Your task to perform on an android device: open app "PlayWell" (install if not already installed) Image 0: 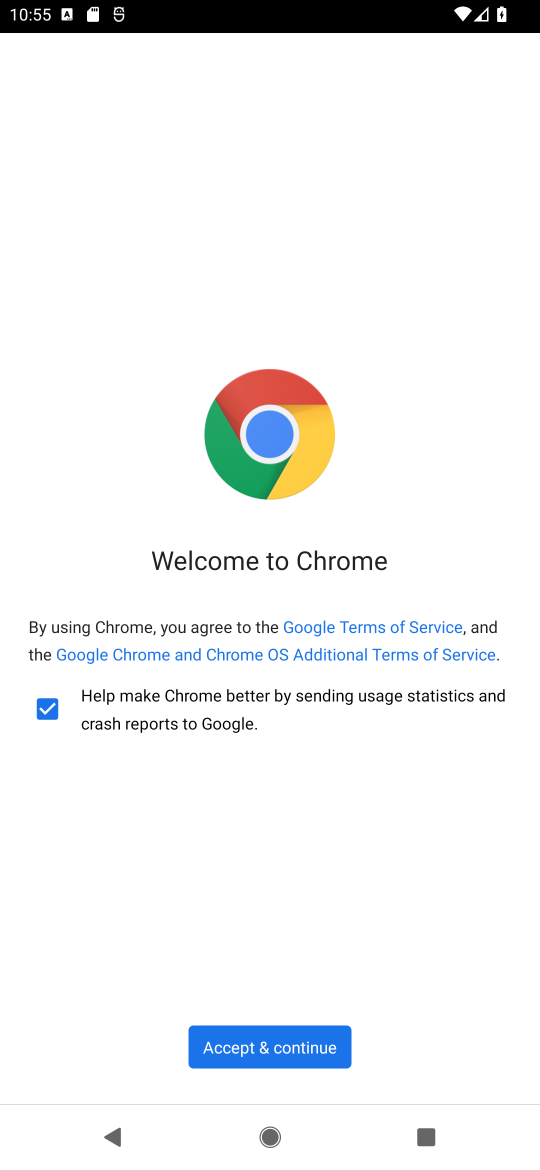
Step 0: press home button
Your task to perform on an android device: open app "PlayWell" (install if not already installed) Image 1: 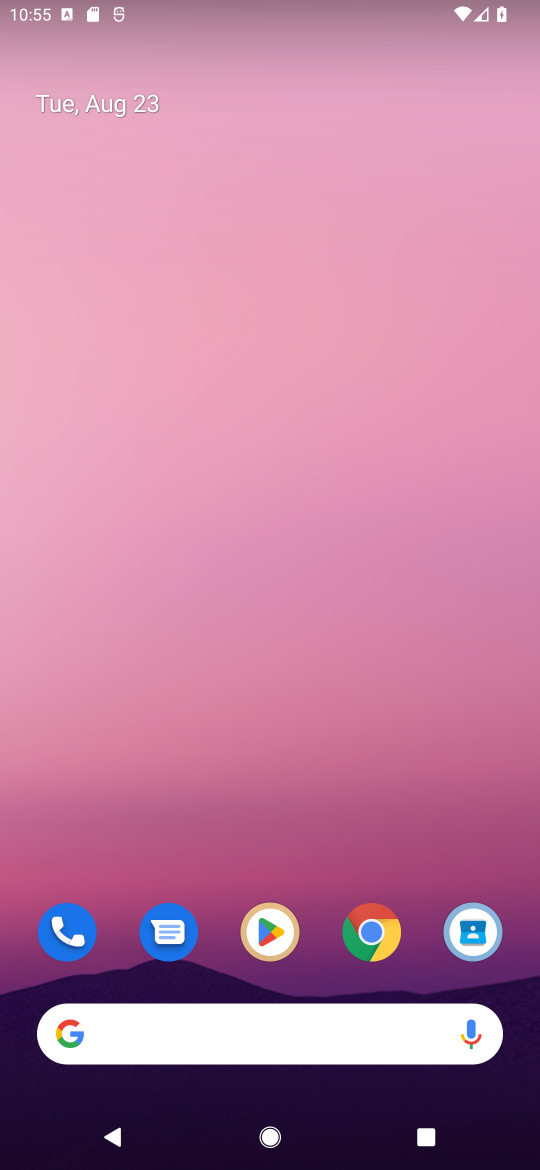
Step 1: click (277, 939)
Your task to perform on an android device: open app "PlayWell" (install if not already installed) Image 2: 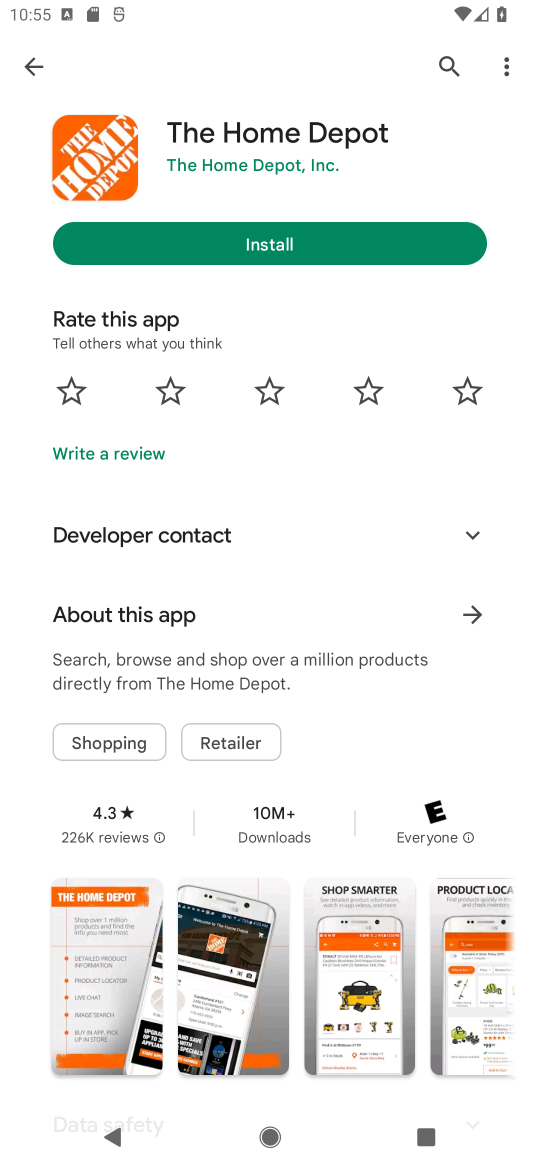
Step 2: click (456, 54)
Your task to perform on an android device: open app "PlayWell" (install if not already installed) Image 3: 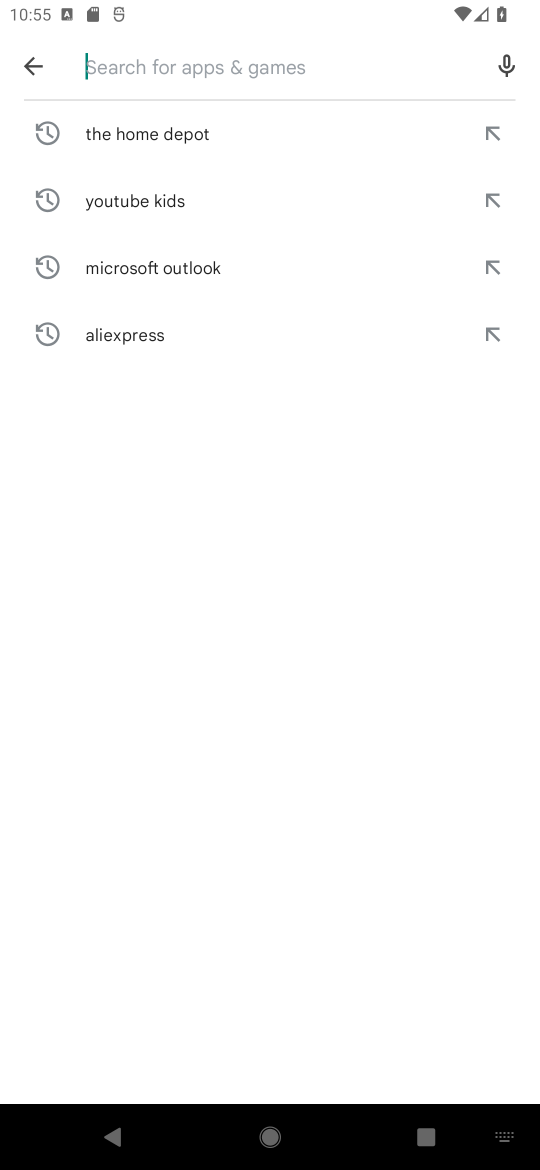
Step 3: click (153, 53)
Your task to perform on an android device: open app "PlayWell" (install if not already installed) Image 4: 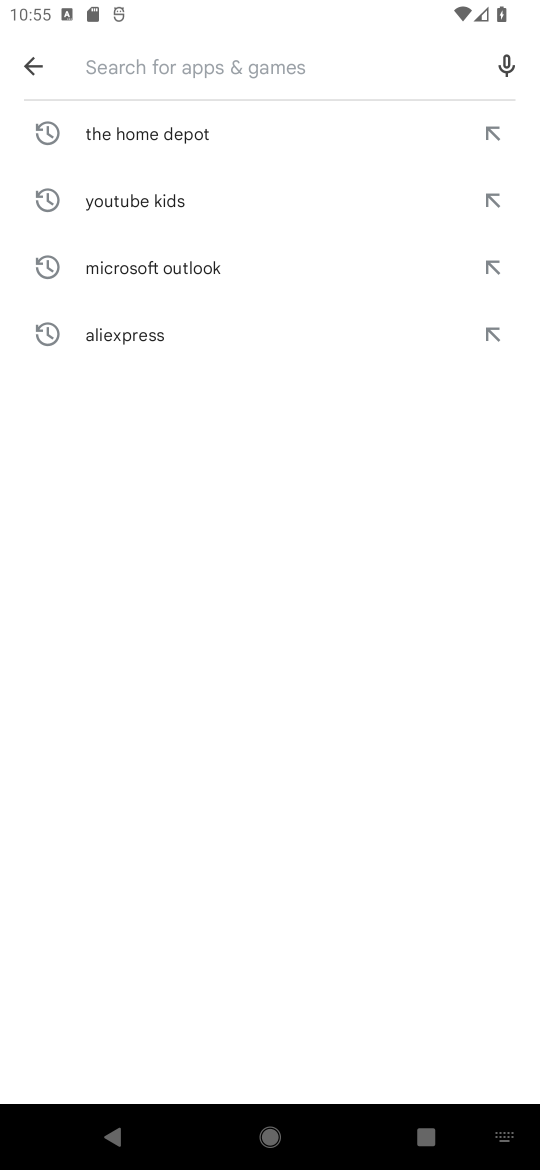
Step 4: type "PlayWell"
Your task to perform on an android device: open app "PlayWell" (install if not already installed) Image 5: 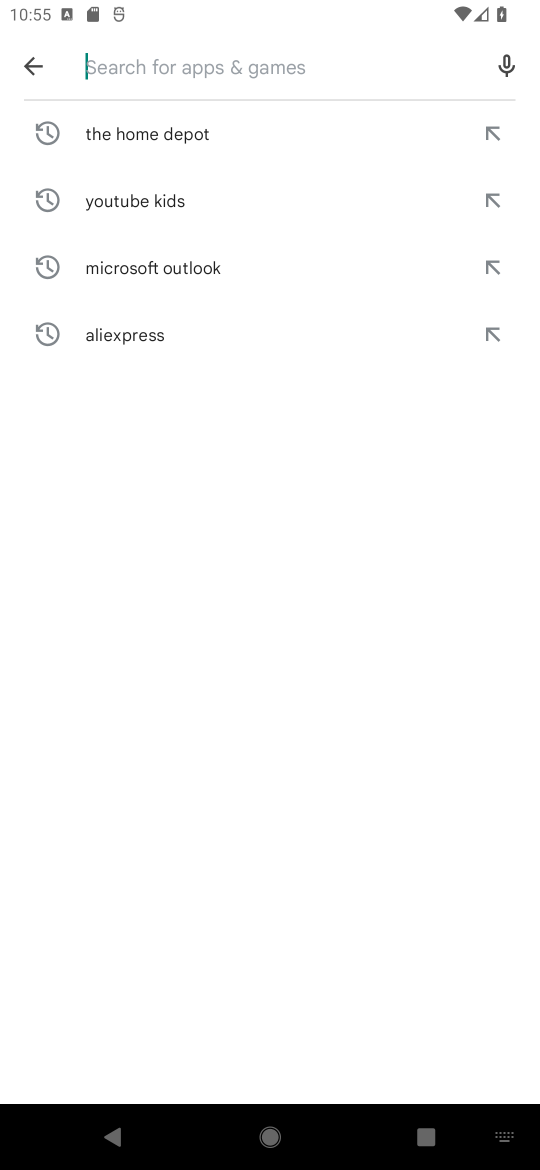
Step 5: click (303, 652)
Your task to perform on an android device: open app "PlayWell" (install if not already installed) Image 6: 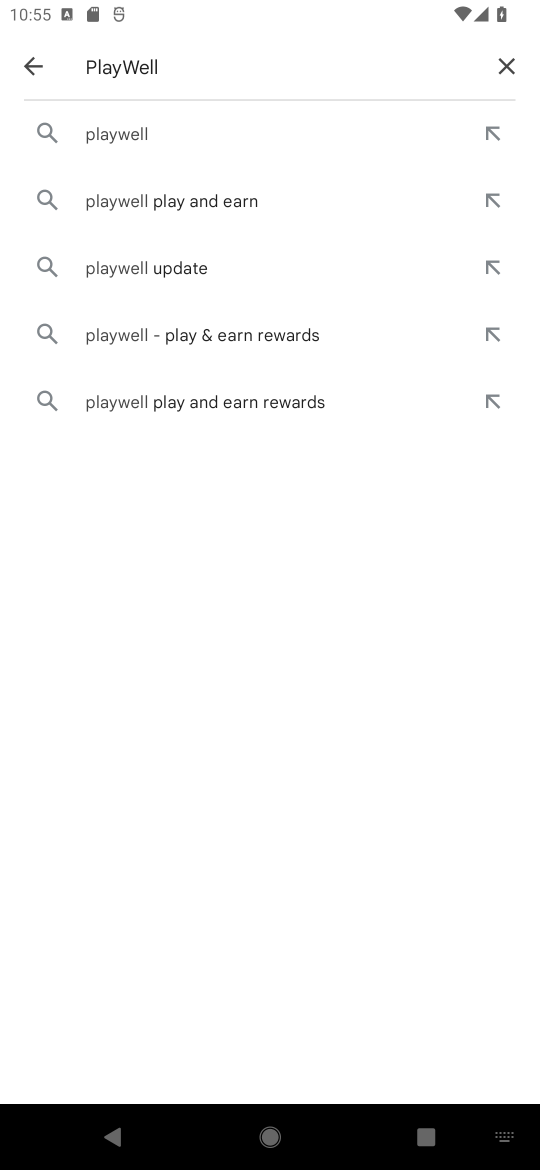
Step 6: click (157, 139)
Your task to perform on an android device: open app "PlayWell" (install if not already installed) Image 7: 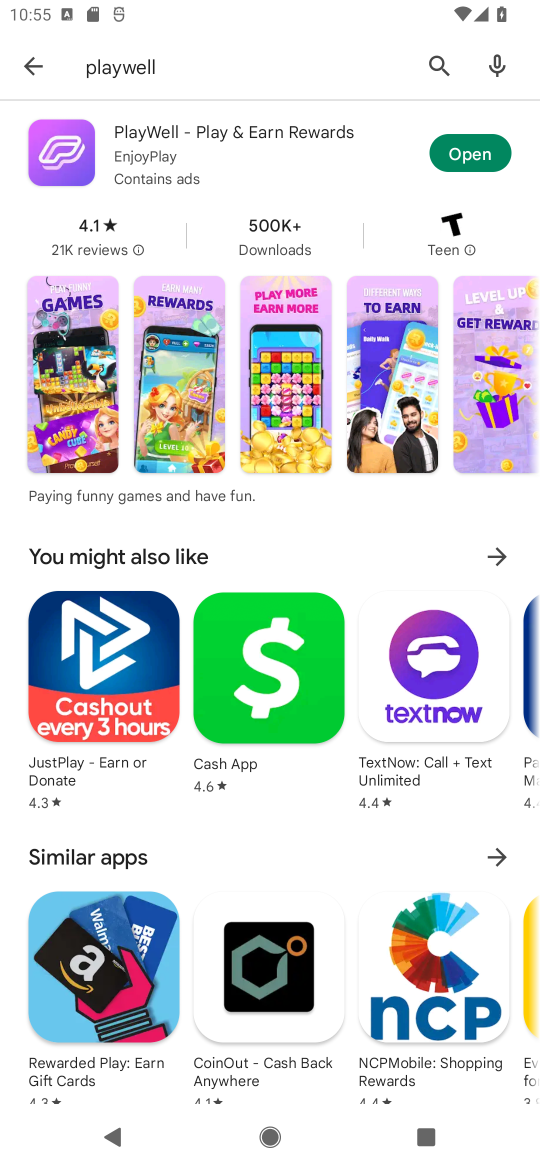
Step 7: click (438, 150)
Your task to perform on an android device: open app "PlayWell" (install if not already installed) Image 8: 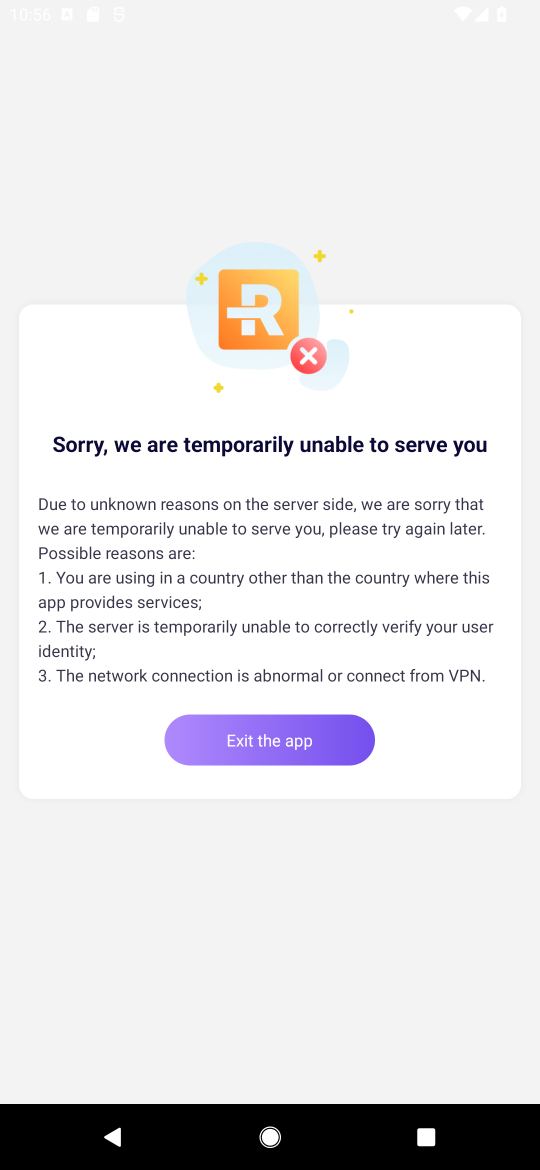
Step 8: task complete